Your task to perform on an android device: Open Google Chrome and open the bookmarks view Image 0: 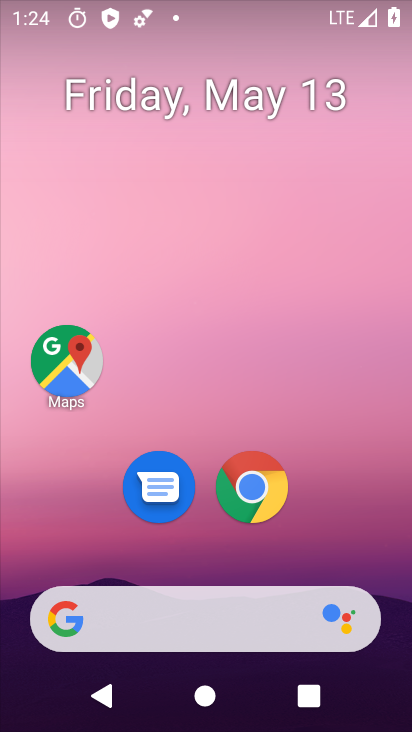
Step 0: drag from (367, 541) to (367, 224)
Your task to perform on an android device: Open Google Chrome and open the bookmarks view Image 1: 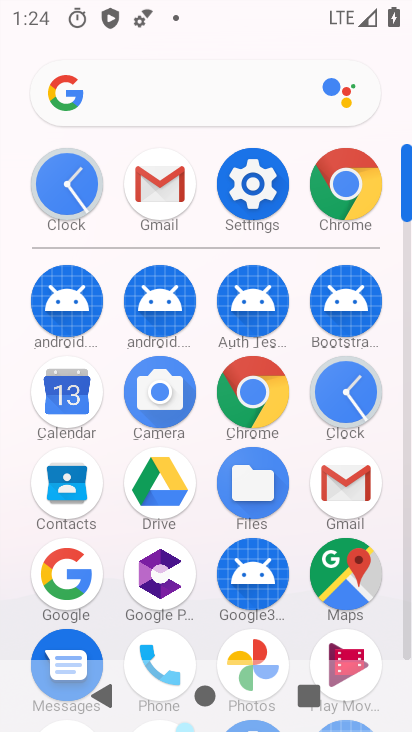
Step 1: click (248, 416)
Your task to perform on an android device: Open Google Chrome and open the bookmarks view Image 2: 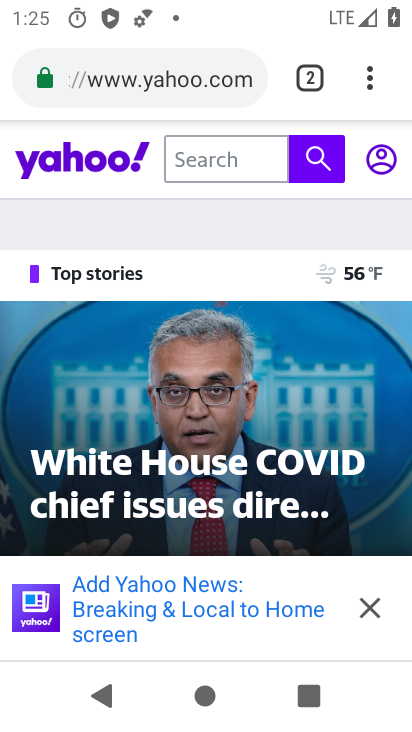
Step 2: click (233, 85)
Your task to perform on an android device: Open Google Chrome and open the bookmarks view Image 3: 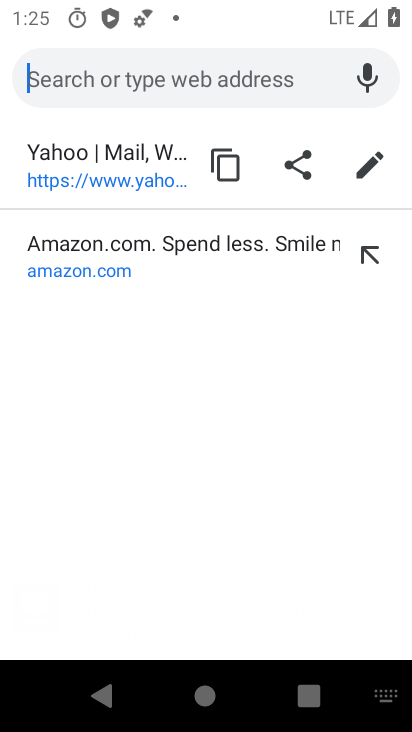
Step 3: press back button
Your task to perform on an android device: Open Google Chrome and open the bookmarks view Image 4: 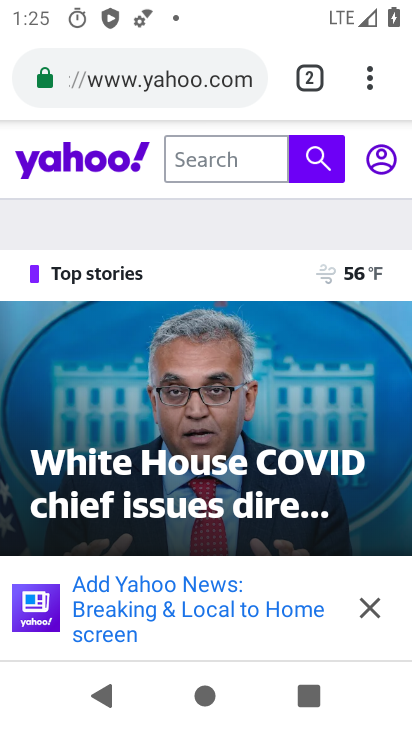
Step 4: click (375, 80)
Your task to perform on an android device: Open Google Chrome and open the bookmarks view Image 5: 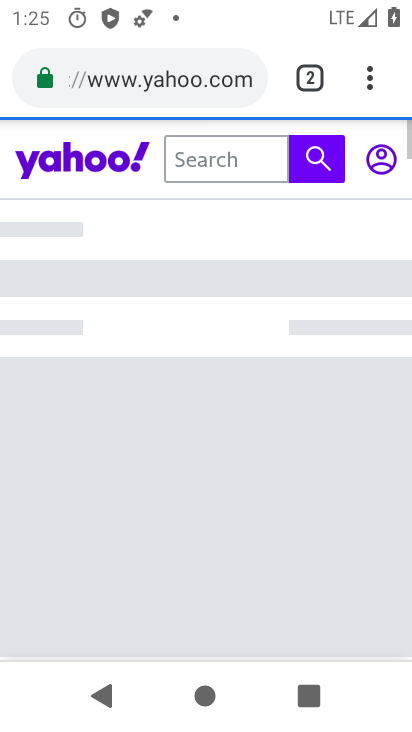
Step 5: task complete